Your task to perform on an android device: turn pop-ups off in chrome Image 0: 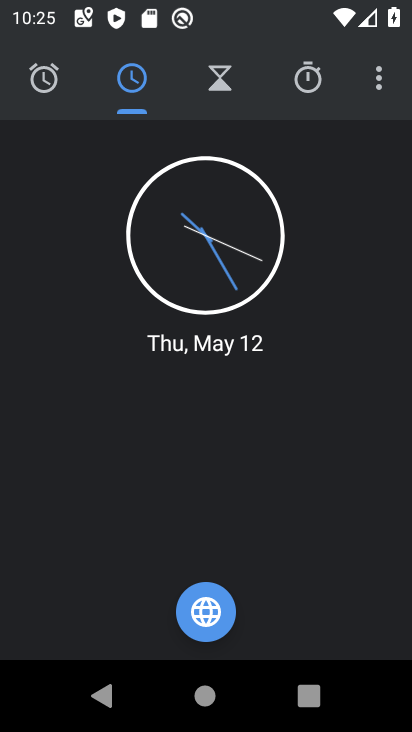
Step 0: press home button
Your task to perform on an android device: turn pop-ups off in chrome Image 1: 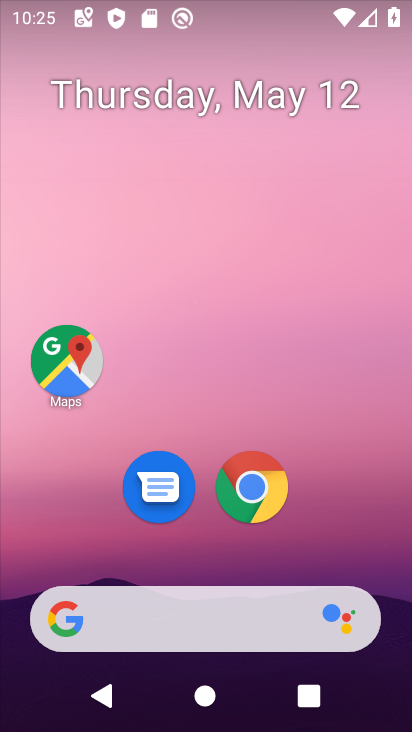
Step 1: click (235, 493)
Your task to perform on an android device: turn pop-ups off in chrome Image 2: 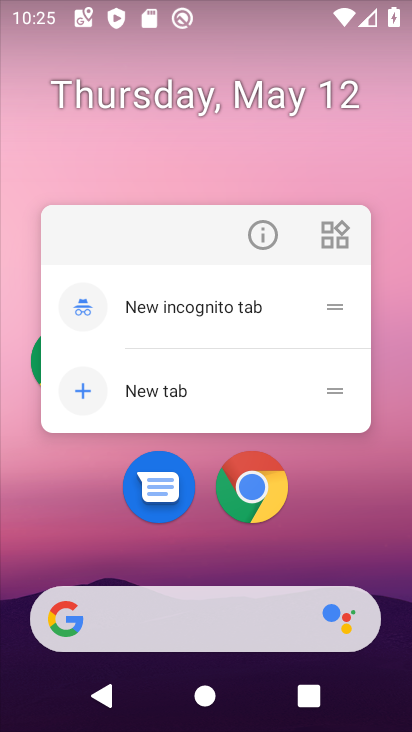
Step 2: press back button
Your task to perform on an android device: turn pop-ups off in chrome Image 3: 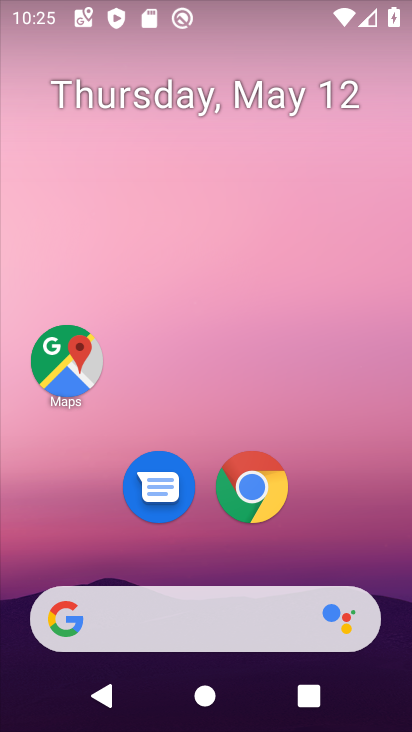
Step 3: click (262, 488)
Your task to perform on an android device: turn pop-ups off in chrome Image 4: 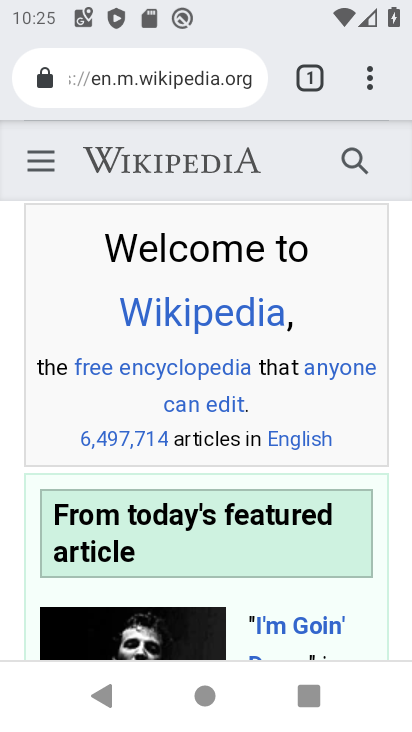
Step 4: click (375, 80)
Your task to perform on an android device: turn pop-ups off in chrome Image 5: 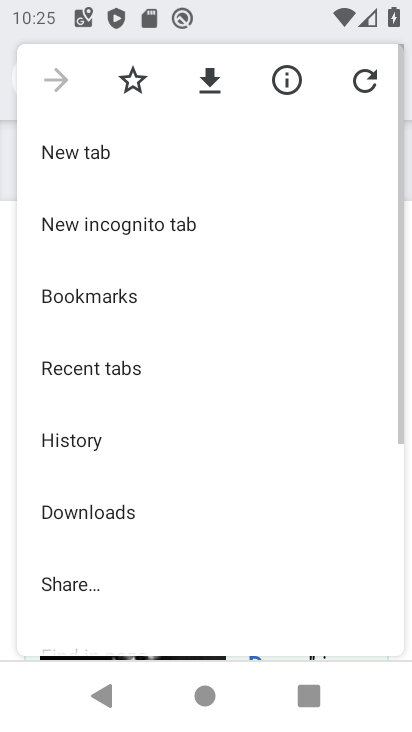
Step 5: drag from (153, 586) to (263, 222)
Your task to perform on an android device: turn pop-ups off in chrome Image 6: 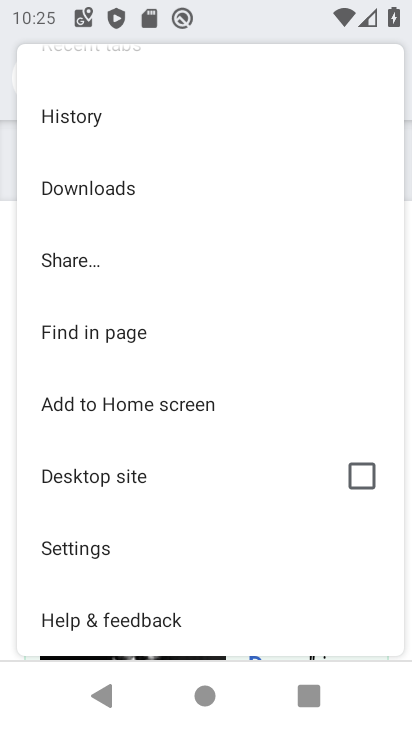
Step 6: click (96, 546)
Your task to perform on an android device: turn pop-ups off in chrome Image 7: 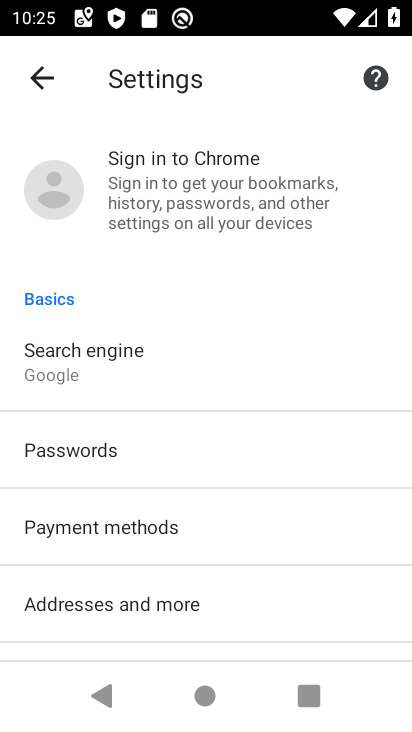
Step 7: drag from (90, 623) to (291, 170)
Your task to perform on an android device: turn pop-ups off in chrome Image 8: 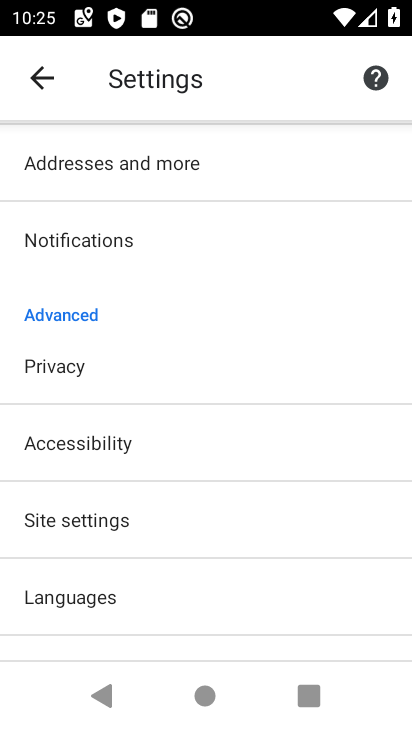
Step 8: drag from (46, 618) to (223, 261)
Your task to perform on an android device: turn pop-ups off in chrome Image 9: 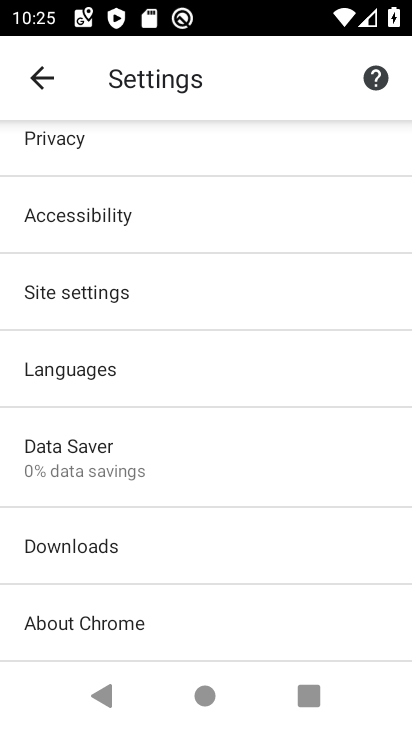
Step 9: drag from (19, 626) to (186, 315)
Your task to perform on an android device: turn pop-ups off in chrome Image 10: 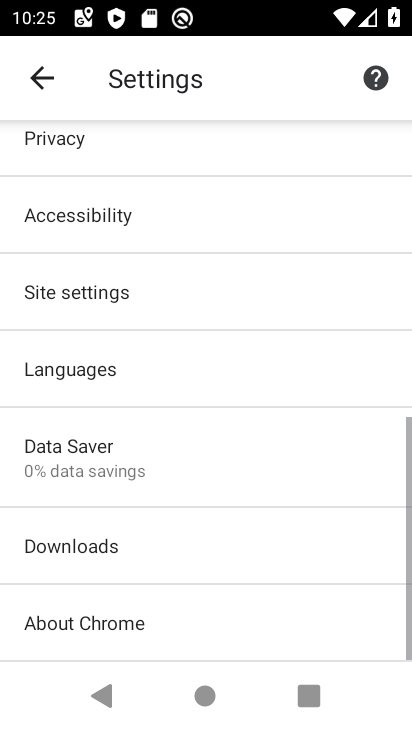
Step 10: click (192, 276)
Your task to perform on an android device: turn pop-ups off in chrome Image 11: 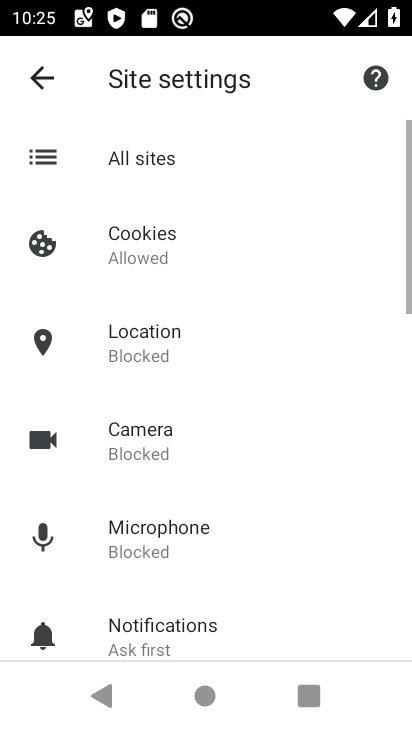
Step 11: drag from (114, 583) to (284, 270)
Your task to perform on an android device: turn pop-ups off in chrome Image 12: 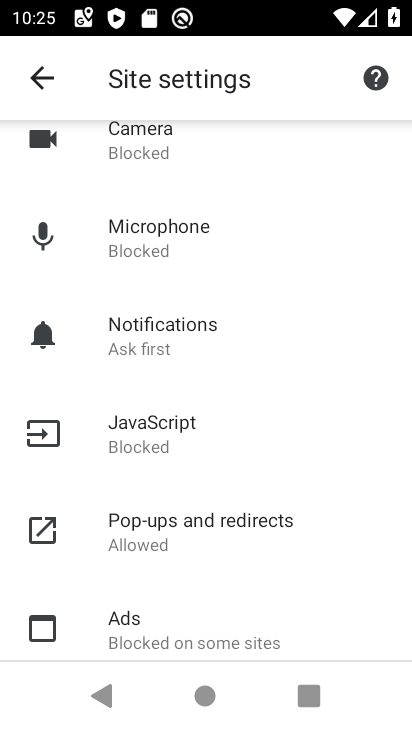
Step 12: drag from (178, 215) to (147, 600)
Your task to perform on an android device: turn pop-ups off in chrome Image 13: 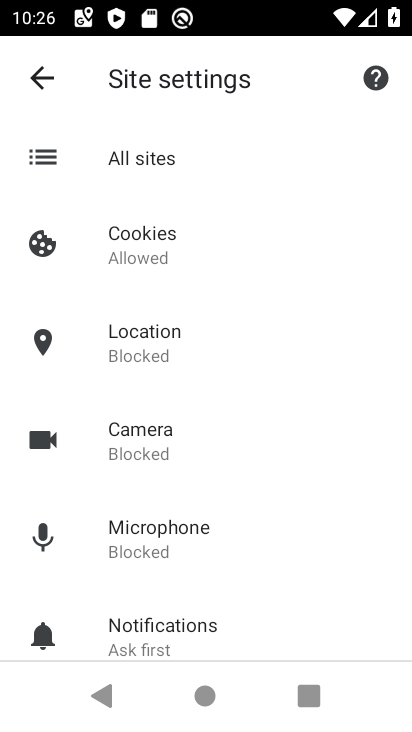
Step 13: drag from (178, 101) to (142, 482)
Your task to perform on an android device: turn pop-ups off in chrome Image 14: 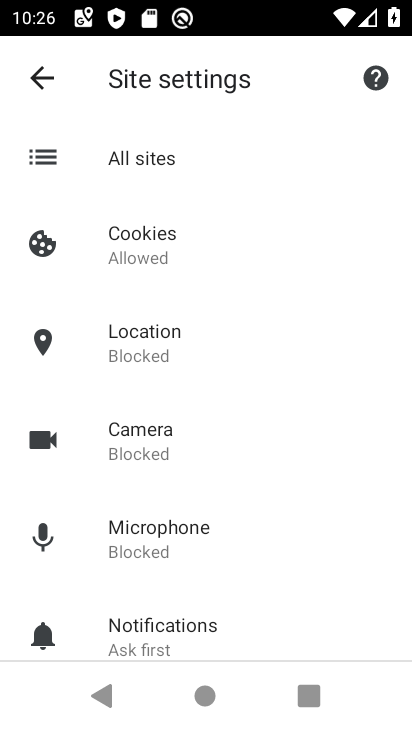
Step 14: drag from (84, 579) to (284, 223)
Your task to perform on an android device: turn pop-ups off in chrome Image 15: 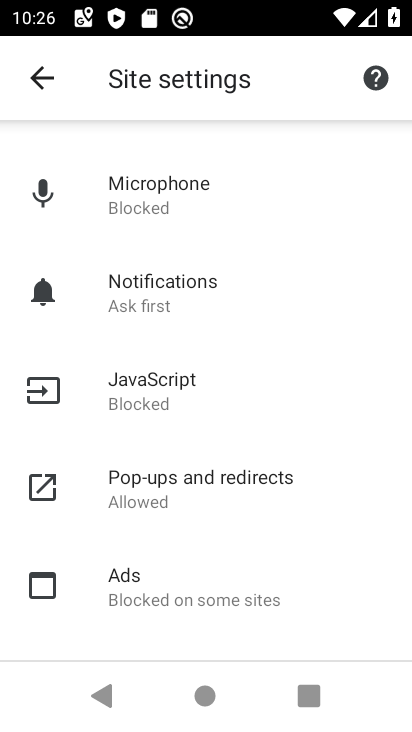
Step 15: click (186, 475)
Your task to perform on an android device: turn pop-ups off in chrome Image 16: 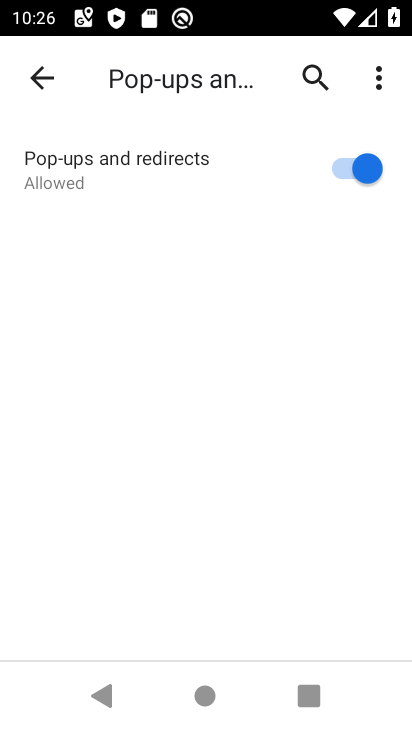
Step 16: click (381, 173)
Your task to perform on an android device: turn pop-ups off in chrome Image 17: 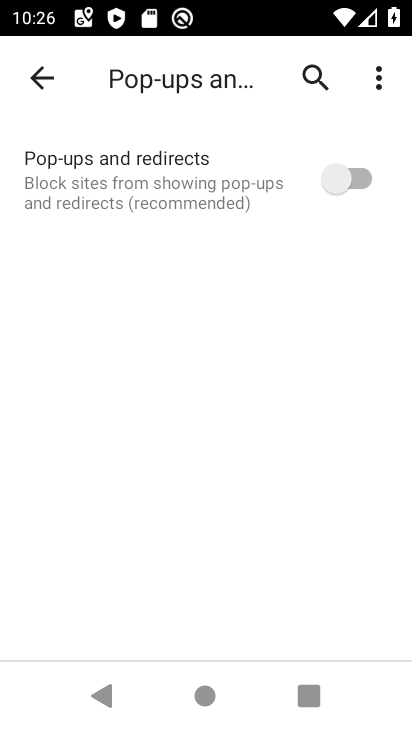
Step 17: task complete